Your task to perform on an android device: Show me popular games on the Play Store Image 0: 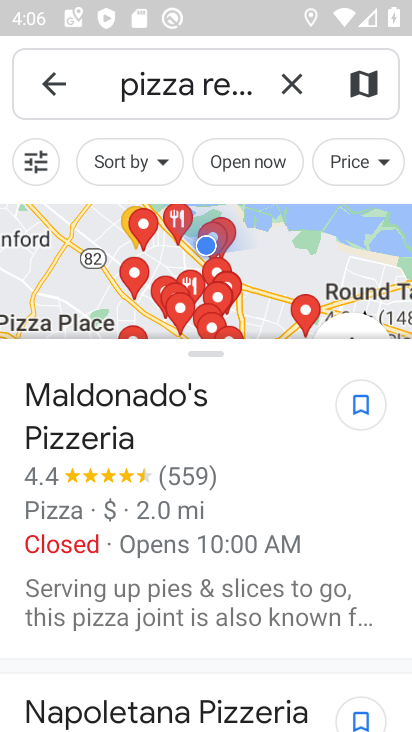
Step 0: press home button
Your task to perform on an android device: Show me popular games on the Play Store Image 1: 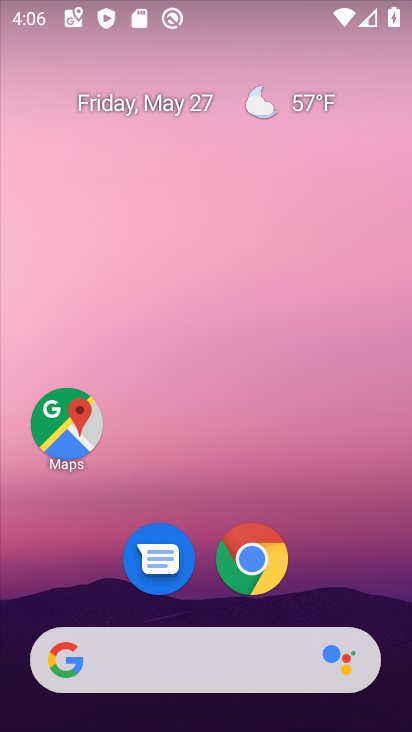
Step 1: drag from (334, 593) to (303, 184)
Your task to perform on an android device: Show me popular games on the Play Store Image 2: 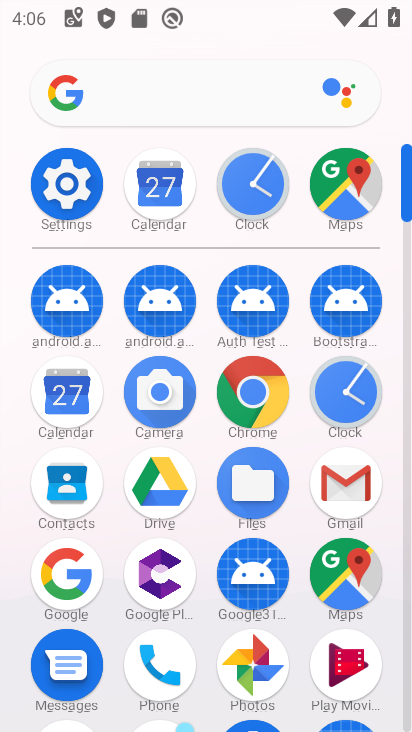
Step 2: click (407, 652)
Your task to perform on an android device: Show me popular games on the Play Store Image 3: 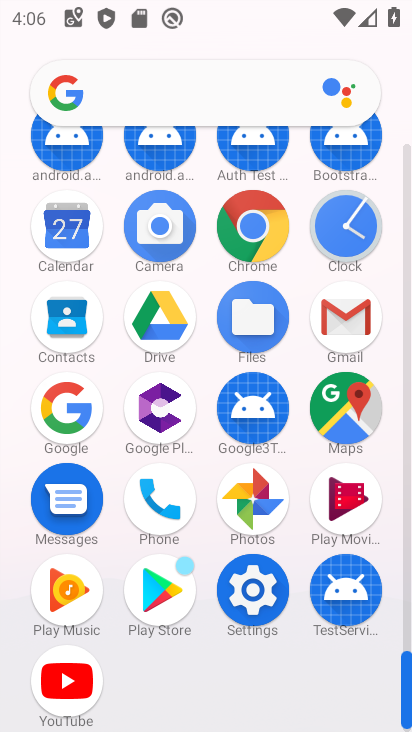
Step 3: click (155, 601)
Your task to perform on an android device: Show me popular games on the Play Store Image 4: 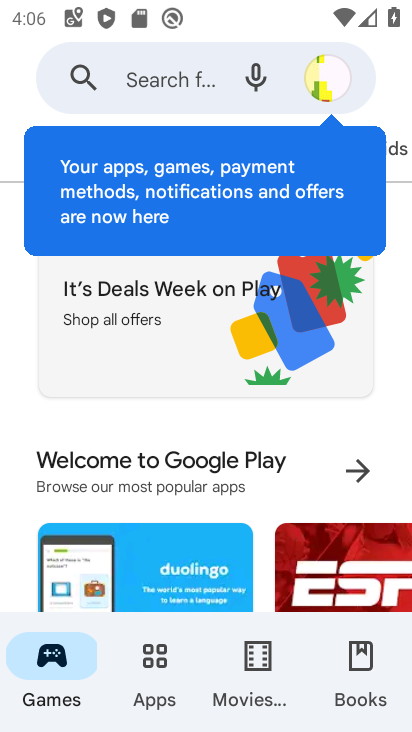
Step 4: click (181, 664)
Your task to perform on an android device: Show me popular games on the Play Store Image 5: 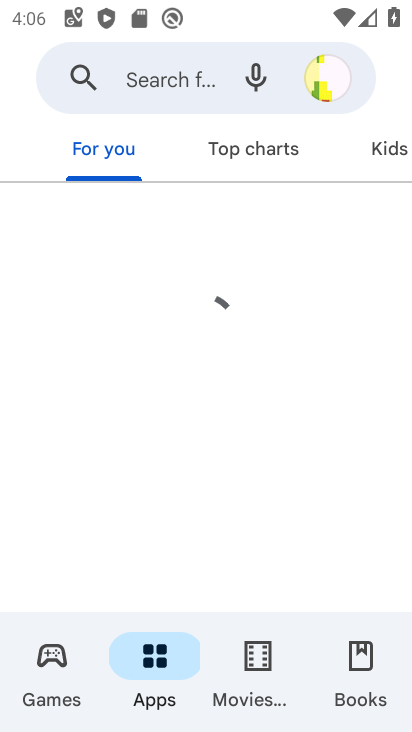
Step 5: click (81, 667)
Your task to perform on an android device: Show me popular games on the Play Store Image 6: 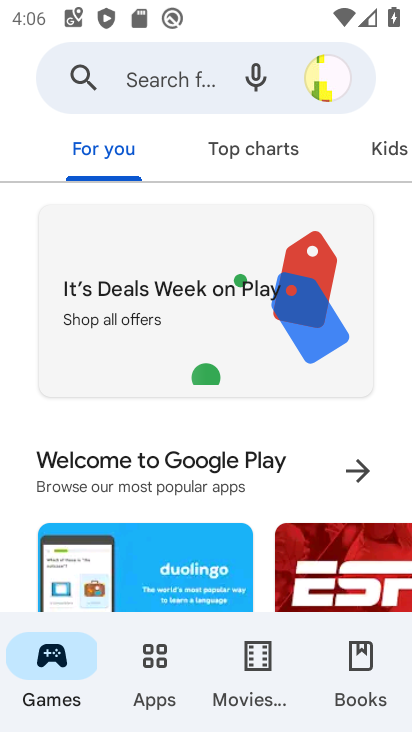
Step 6: click (246, 172)
Your task to perform on an android device: Show me popular games on the Play Store Image 7: 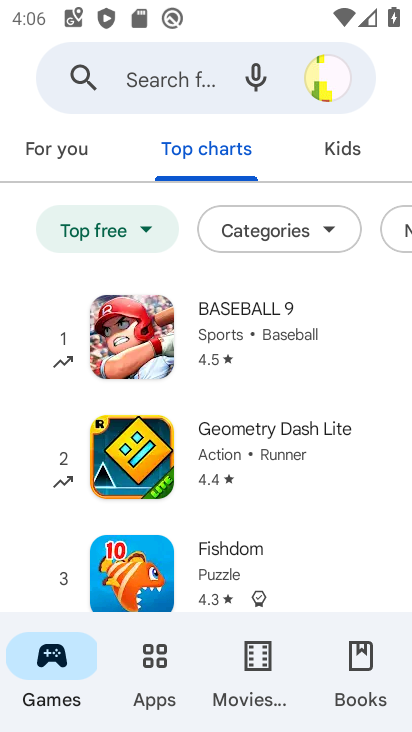
Step 7: task complete